Your task to perform on an android device: open chrome and create a bookmark for the current page Image 0: 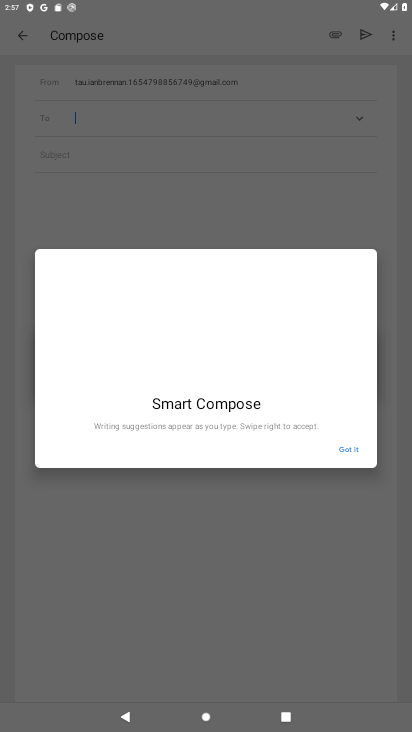
Step 0: press home button
Your task to perform on an android device: open chrome and create a bookmark for the current page Image 1: 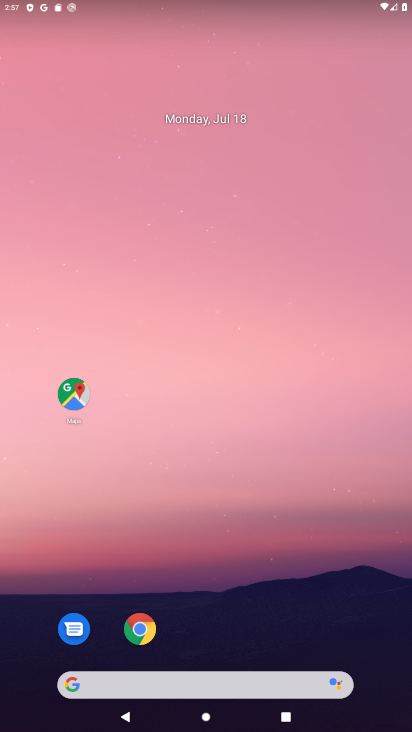
Step 1: drag from (227, 665) to (201, 5)
Your task to perform on an android device: open chrome and create a bookmark for the current page Image 2: 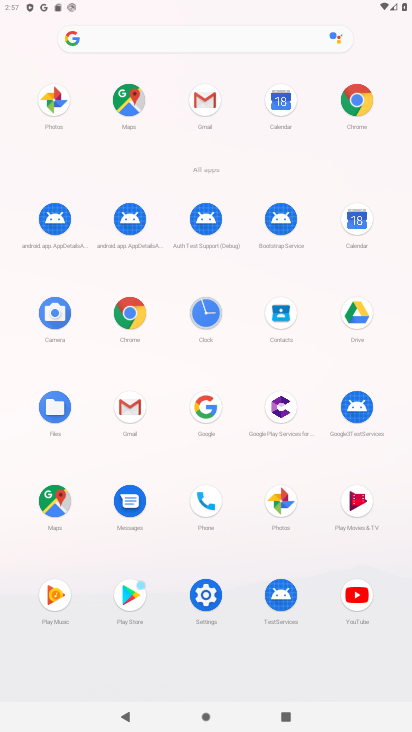
Step 2: click (123, 307)
Your task to perform on an android device: open chrome and create a bookmark for the current page Image 3: 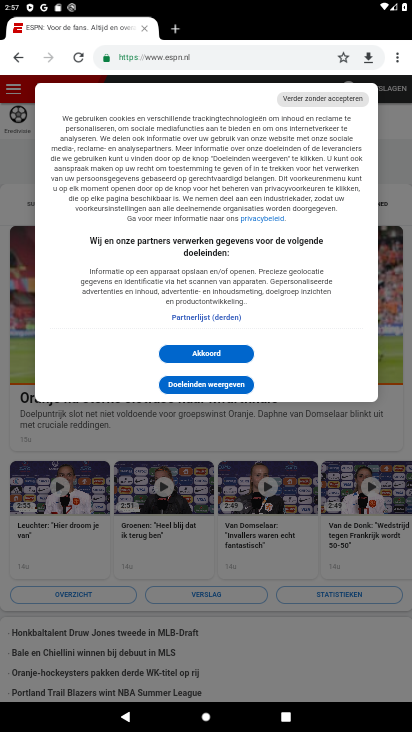
Step 3: drag from (397, 60) to (145, 420)
Your task to perform on an android device: open chrome and create a bookmark for the current page Image 4: 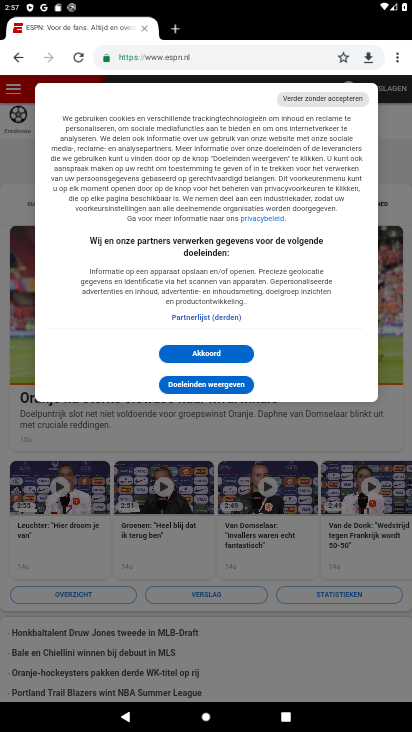
Step 4: click (339, 59)
Your task to perform on an android device: open chrome and create a bookmark for the current page Image 5: 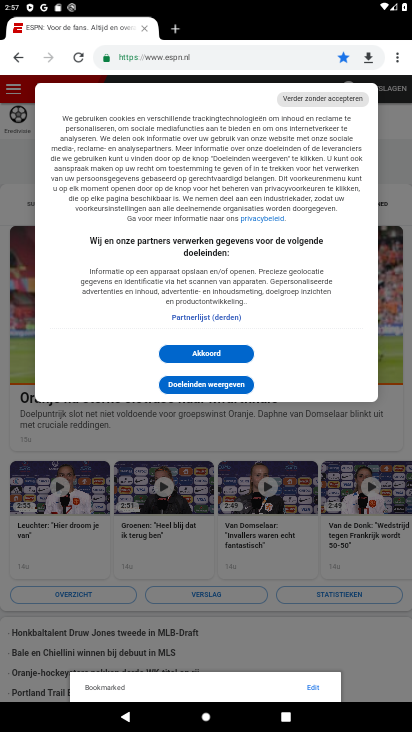
Step 5: task complete